Your task to perform on an android device: Open Android settings Image 0: 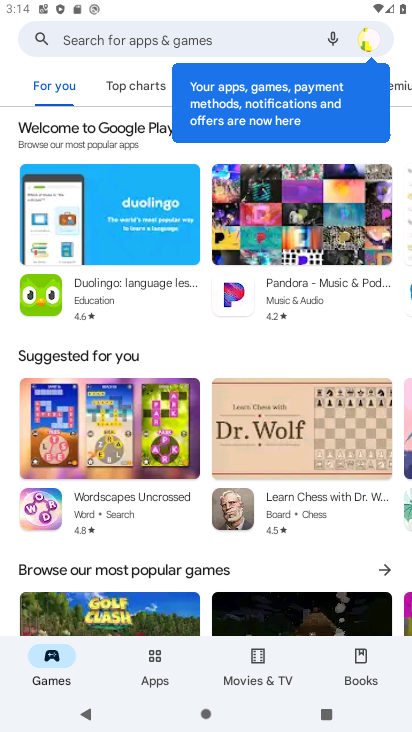
Step 0: press back button
Your task to perform on an android device: Open Android settings Image 1: 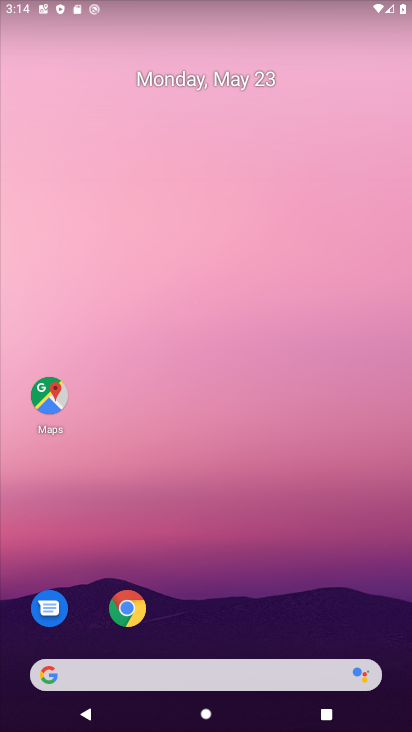
Step 1: drag from (257, 621) to (129, 192)
Your task to perform on an android device: Open Android settings Image 2: 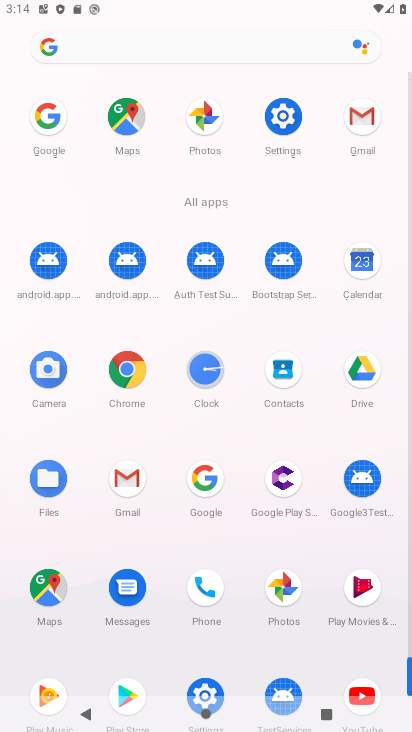
Step 2: drag from (241, 653) to (259, 444)
Your task to perform on an android device: Open Android settings Image 3: 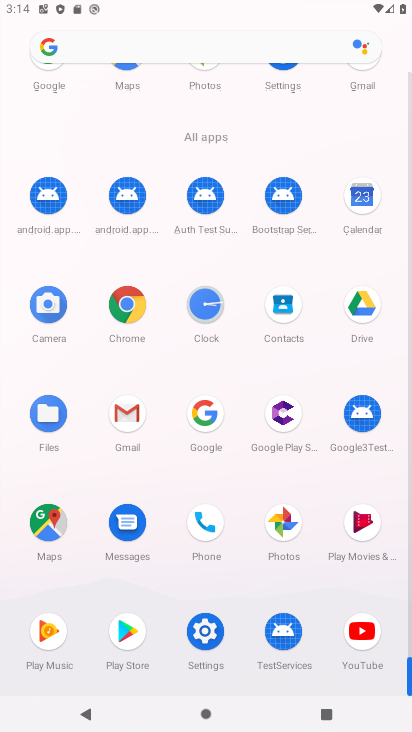
Step 3: click (202, 632)
Your task to perform on an android device: Open Android settings Image 4: 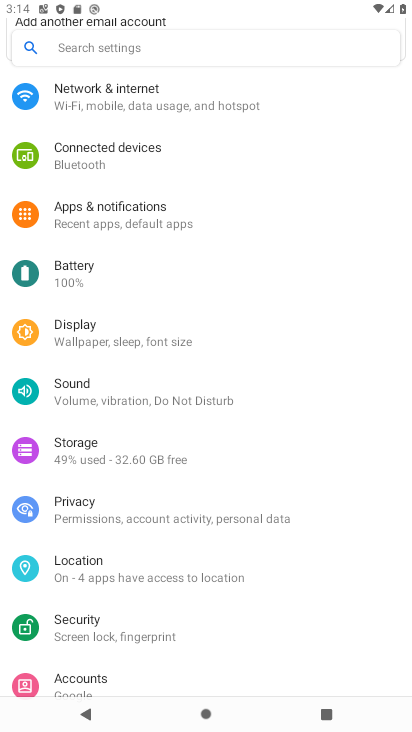
Step 4: task complete